Your task to perform on an android device: Open settings on Google Maps Image 0: 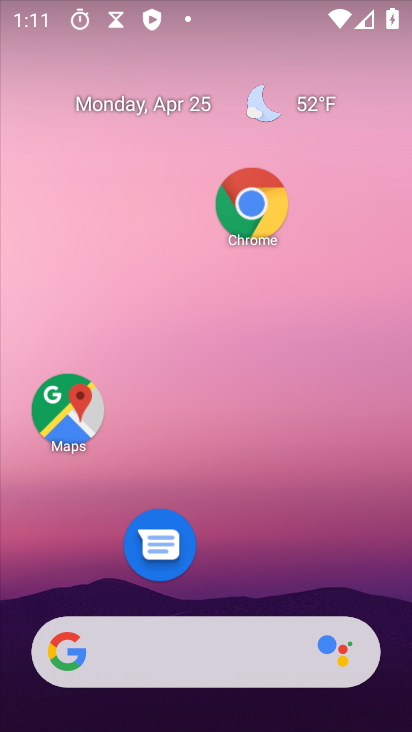
Step 0: drag from (285, 677) to (405, 144)
Your task to perform on an android device: Open settings on Google Maps Image 1: 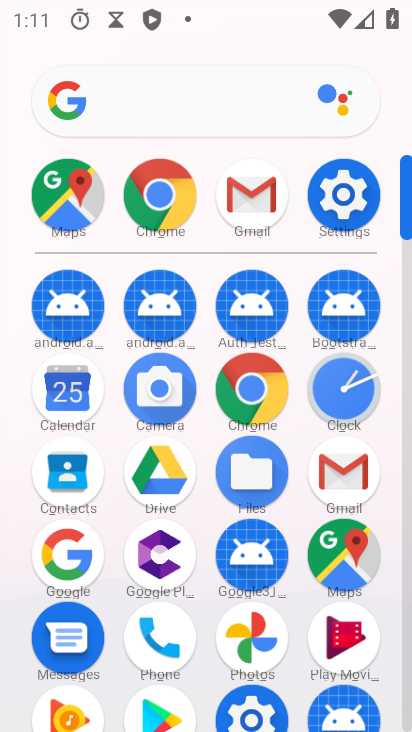
Step 1: click (89, 214)
Your task to perform on an android device: Open settings on Google Maps Image 2: 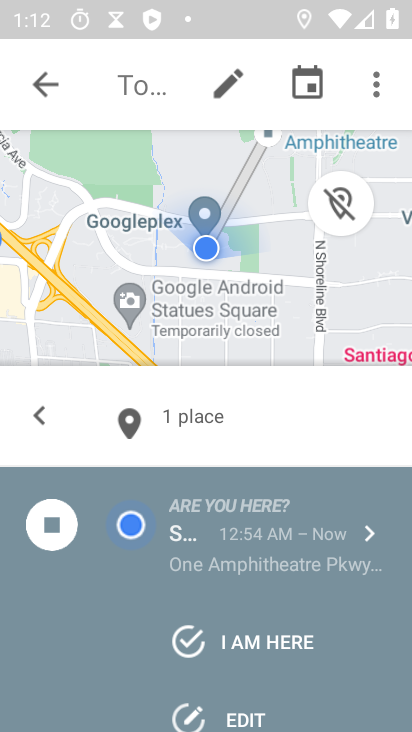
Step 2: click (372, 87)
Your task to perform on an android device: Open settings on Google Maps Image 3: 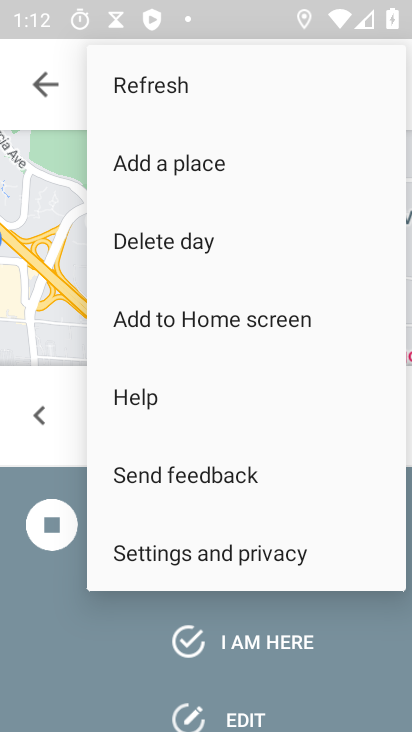
Step 3: drag from (201, 539) to (259, 212)
Your task to perform on an android device: Open settings on Google Maps Image 4: 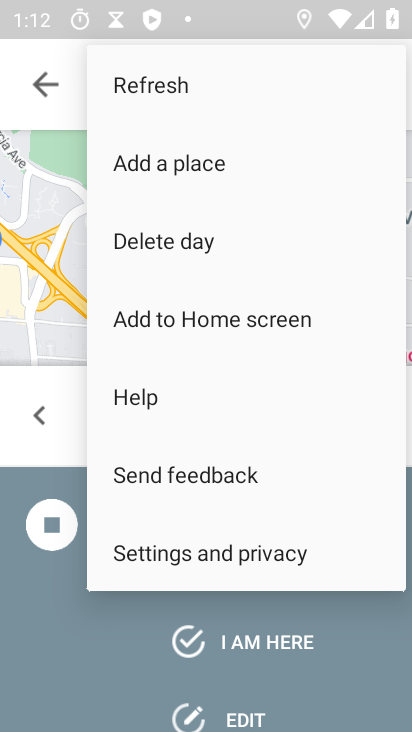
Step 4: drag from (234, 282) to (197, 504)
Your task to perform on an android device: Open settings on Google Maps Image 5: 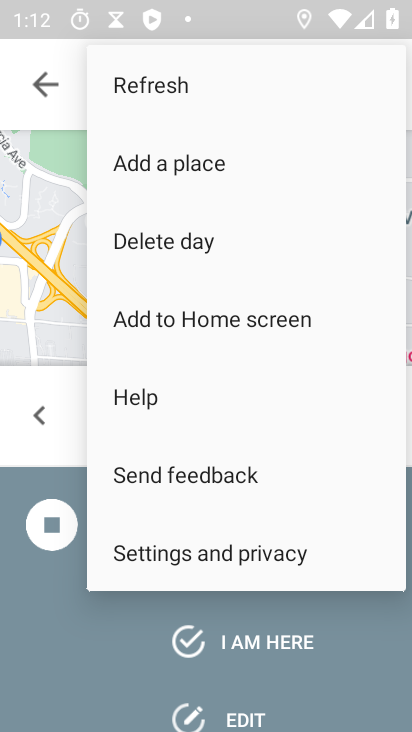
Step 5: click (42, 111)
Your task to perform on an android device: Open settings on Google Maps Image 6: 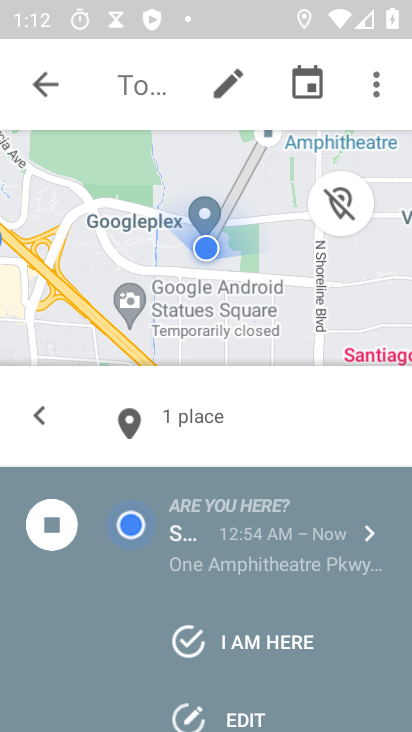
Step 6: click (57, 91)
Your task to perform on an android device: Open settings on Google Maps Image 7: 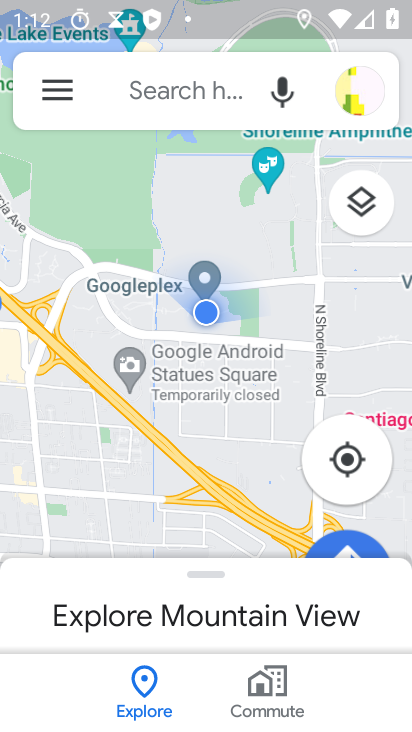
Step 7: click (43, 91)
Your task to perform on an android device: Open settings on Google Maps Image 8: 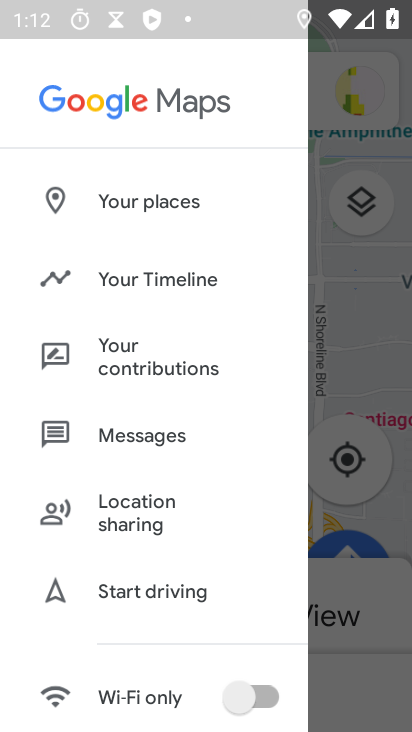
Step 8: drag from (119, 647) to (204, 229)
Your task to perform on an android device: Open settings on Google Maps Image 9: 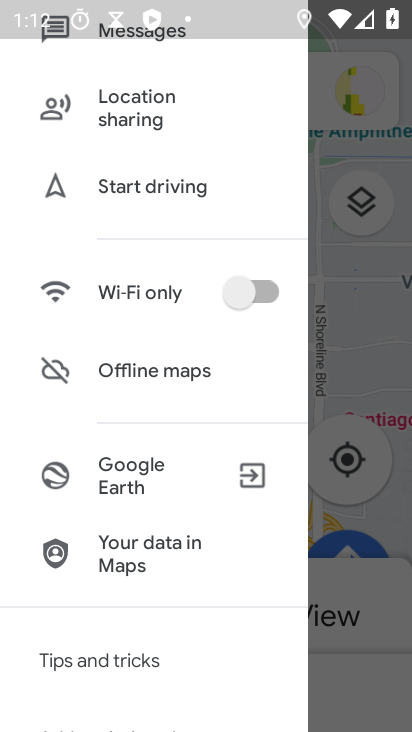
Step 9: drag from (138, 595) to (247, 293)
Your task to perform on an android device: Open settings on Google Maps Image 10: 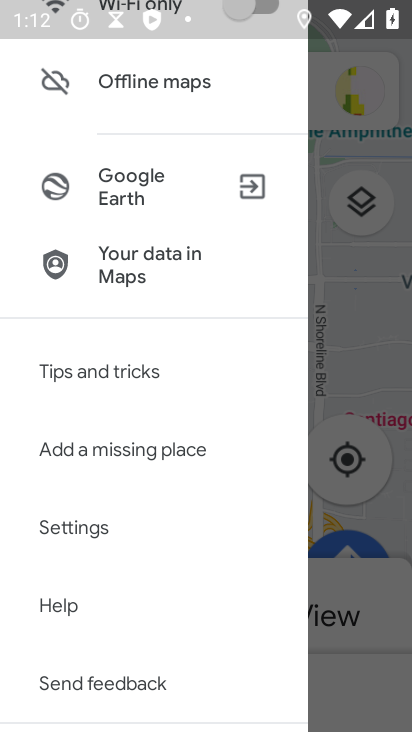
Step 10: click (95, 533)
Your task to perform on an android device: Open settings on Google Maps Image 11: 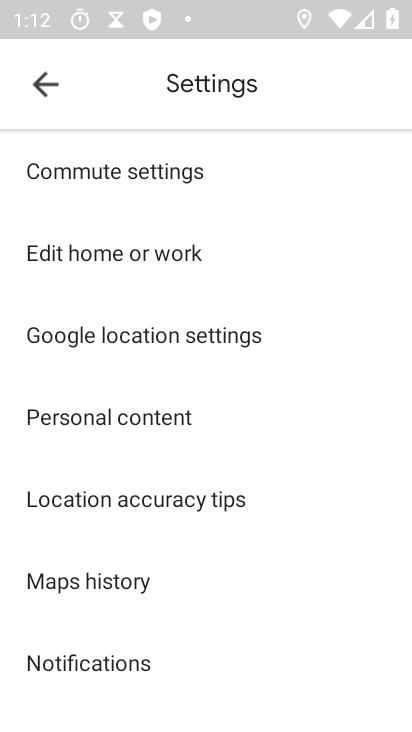
Step 11: task complete